Your task to perform on an android device: check storage Image 0: 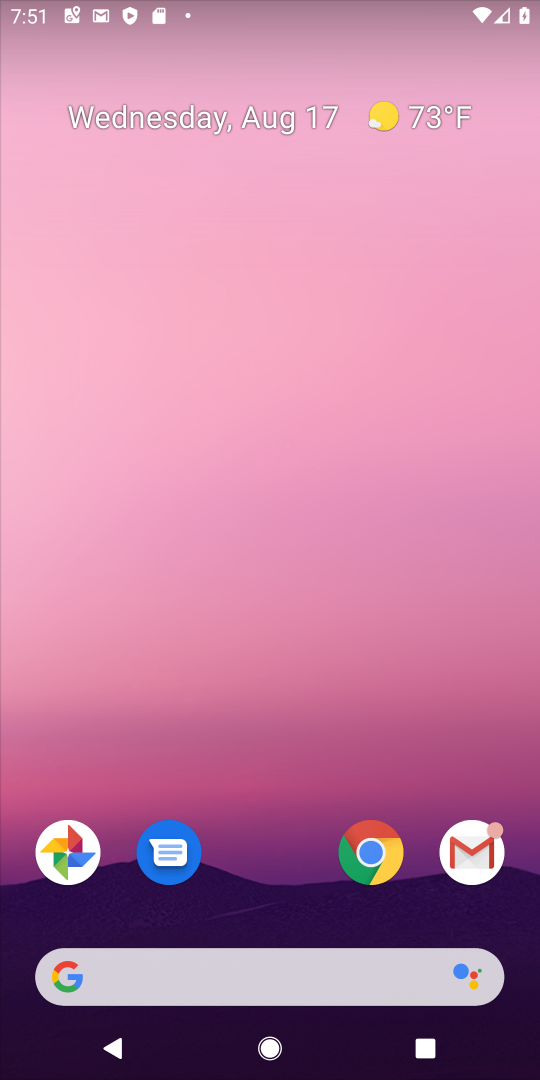
Step 0: drag from (258, 884) to (220, 227)
Your task to perform on an android device: check storage Image 1: 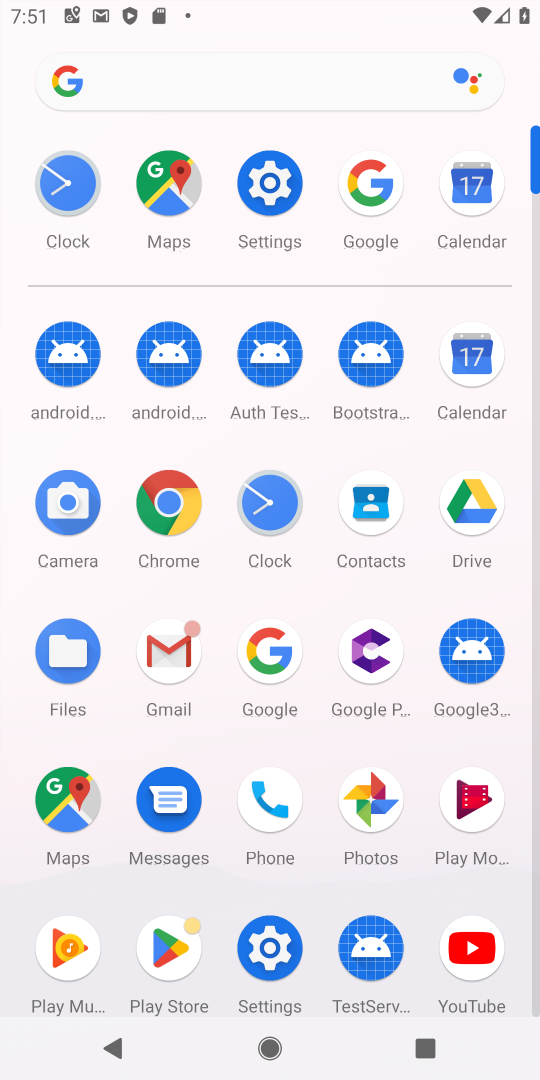
Step 1: click (274, 182)
Your task to perform on an android device: check storage Image 2: 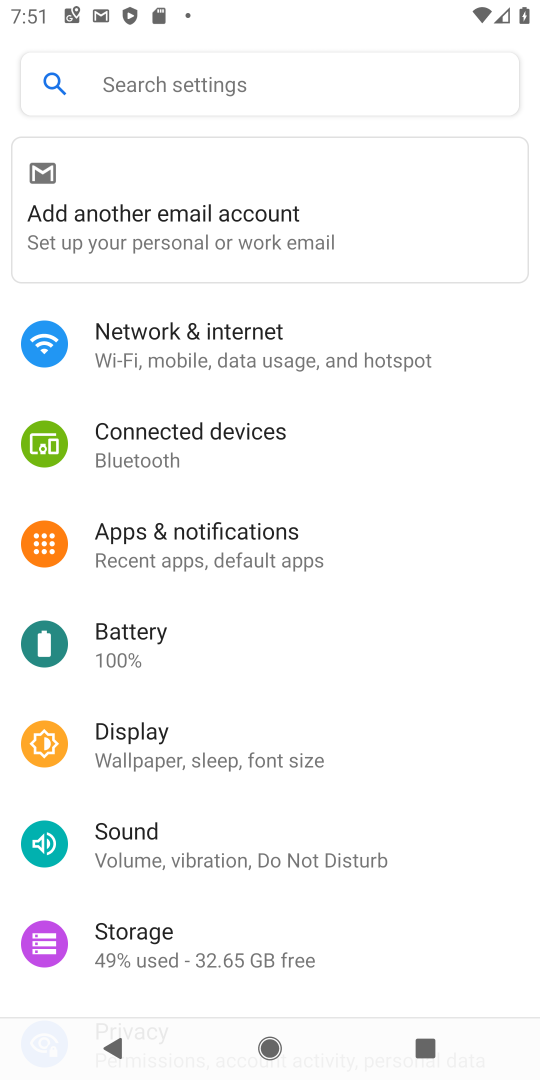
Step 2: click (152, 939)
Your task to perform on an android device: check storage Image 3: 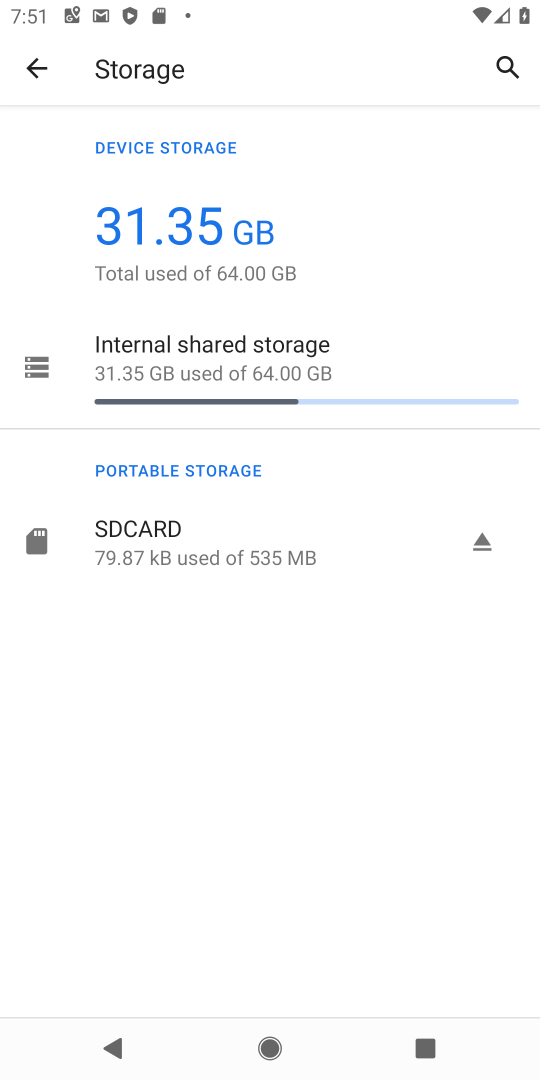
Step 3: task complete